Your task to perform on an android device: Show me recent news Image 0: 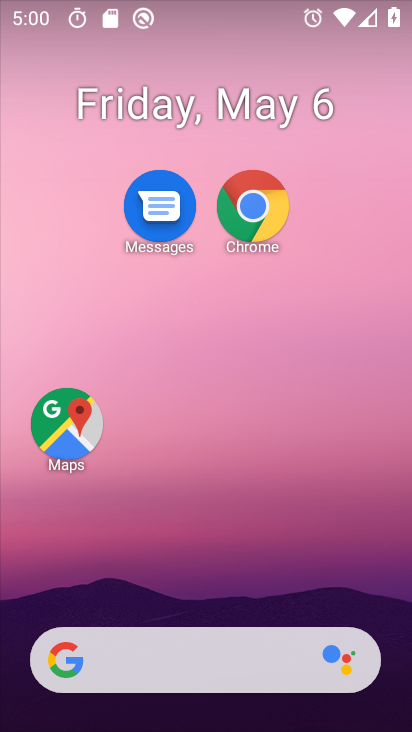
Step 0: drag from (173, 625) to (203, 235)
Your task to perform on an android device: Show me recent news Image 1: 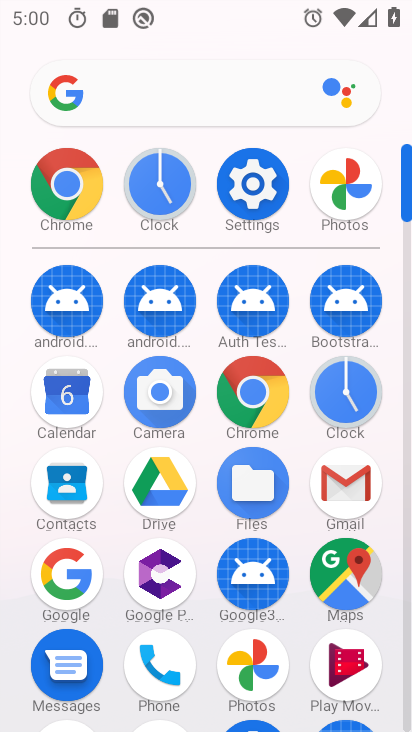
Step 1: click (58, 571)
Your task to perform on an android device: Show me recent news Image 2: 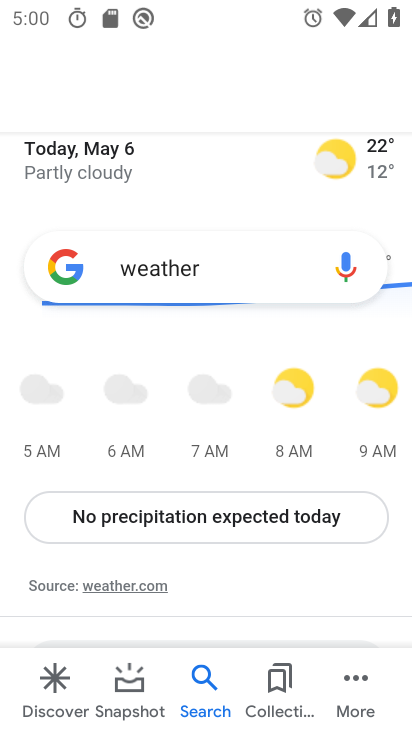
Step 2: click (214, 270)
Your task to perform on an android device: Show me recent news Image 3: 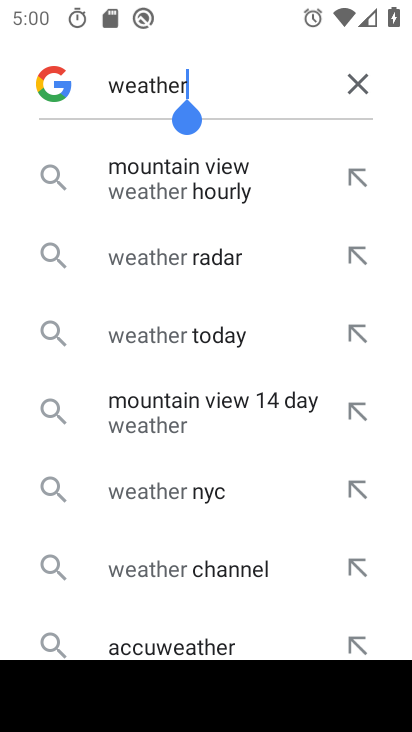
Step 3: click (359, 88)
Your task to perform on an android device: Show me recent news Image 4: 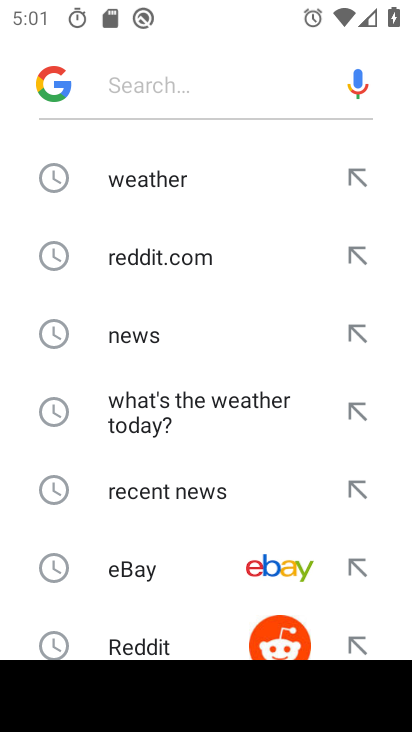
Step 4: click (158, 499)
Your task to perform on an android device: Show me recent news Image 5: 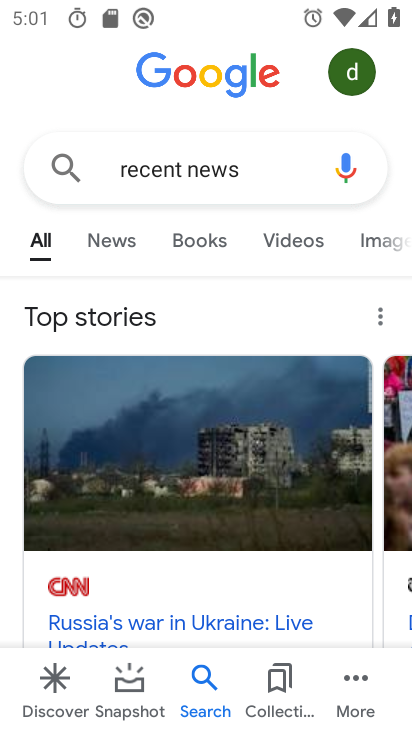
Step 5: task complete